Your task to perform on an android device: change notifications settings Image 0: 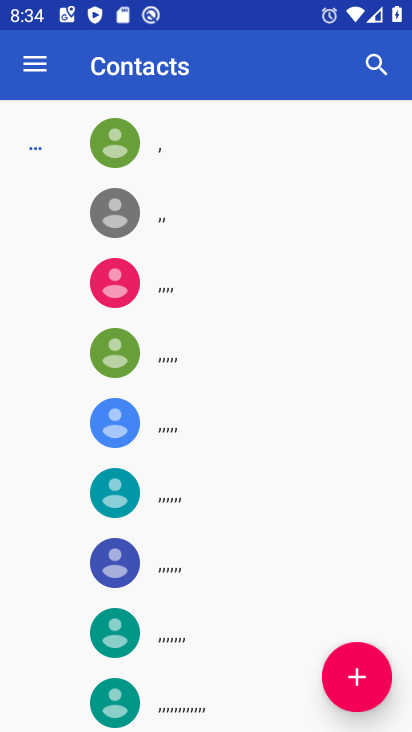
Step 0: press home button
Your task to perform on an android device: change notifications settings Image 1: 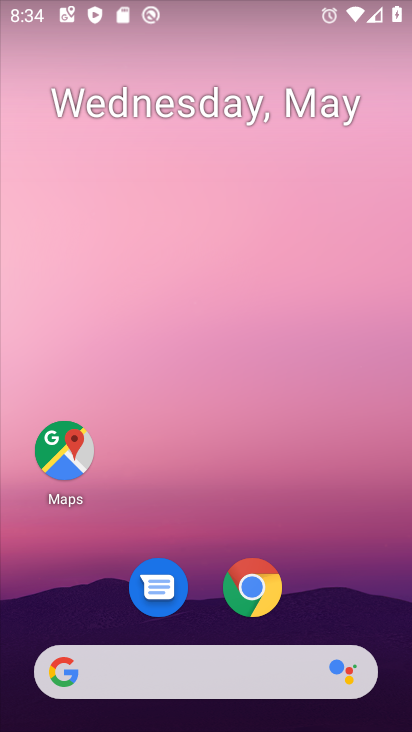
Step 1: drag from (212, 612) to (289, 22)
Your task to perform on an android device: change notifications settings Image 2: 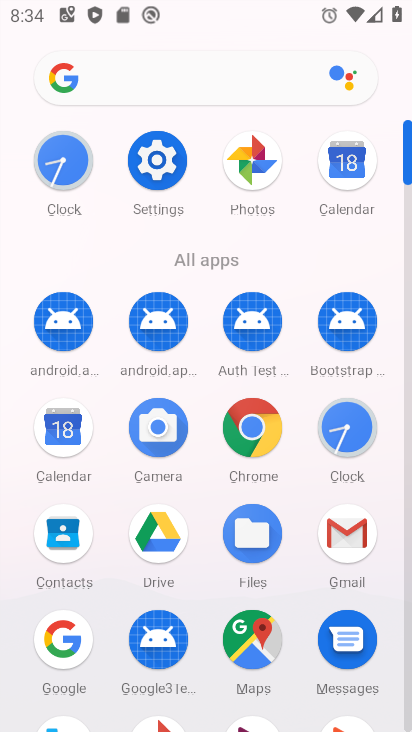
Step 2: click (171, 176)
Your task to perform on an android device: change notifications settings Image 3: 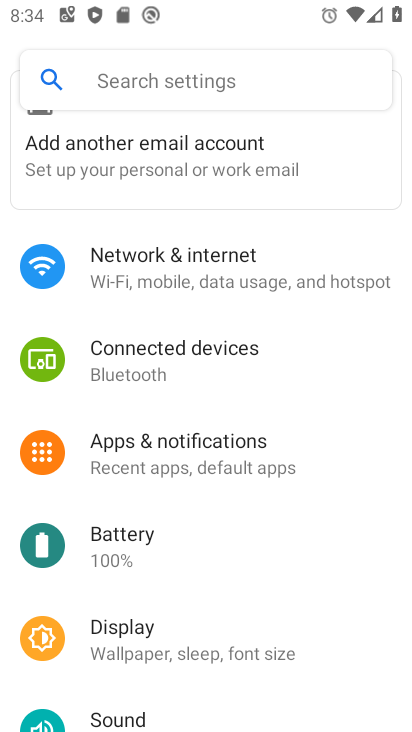
Step 3: click (215, 462)
Your task to perform on an android device: change notifications settings Image 4: 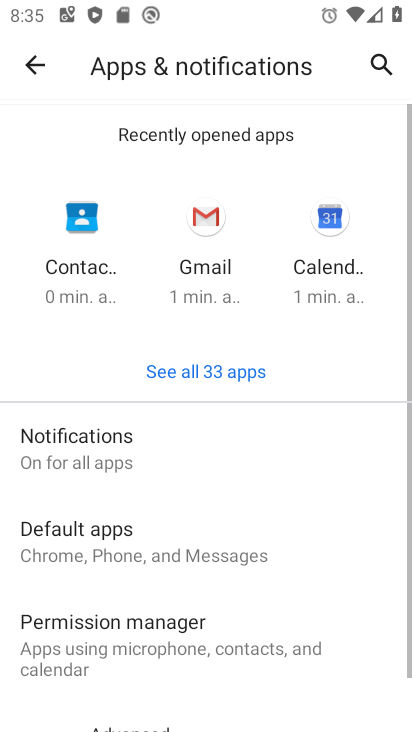
Step 4: click (121, 455)
Your task to perform on an android device: change notifications settings Image 5: 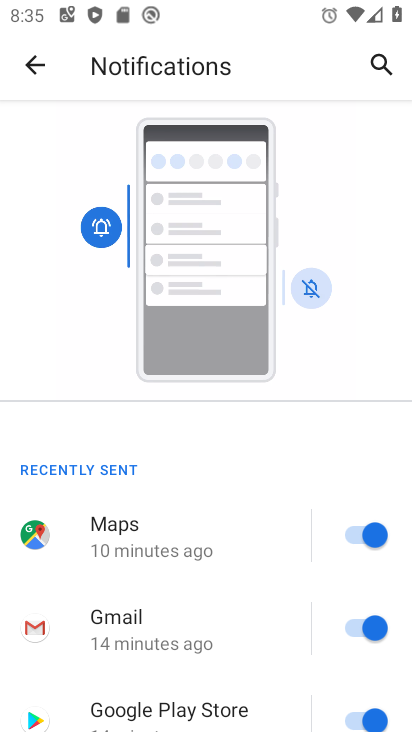
Step 5: drag from (223, 610) to (280, 257)
Your task to perform on an android device: change notifications settings Image 6: 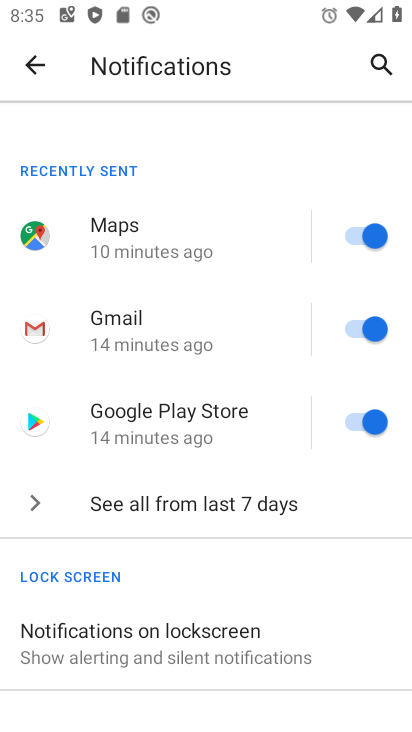
Step 6: click (343, 234)
Your task to perform on an android device: change notifications settings Image 7: 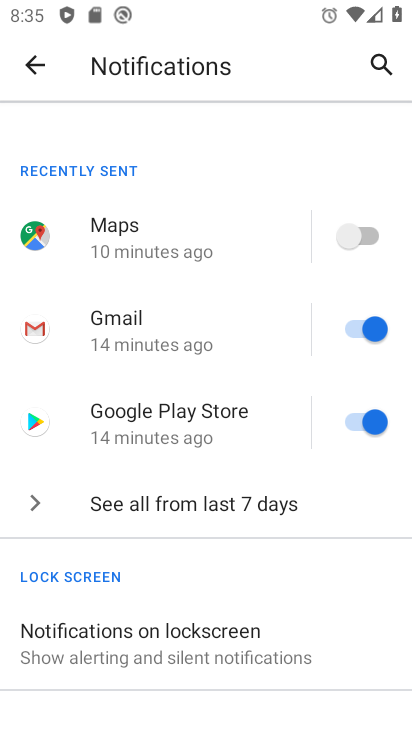
Step 7: click (334, 331)
Your task to perform on an android device: change notifications settings Image 8: 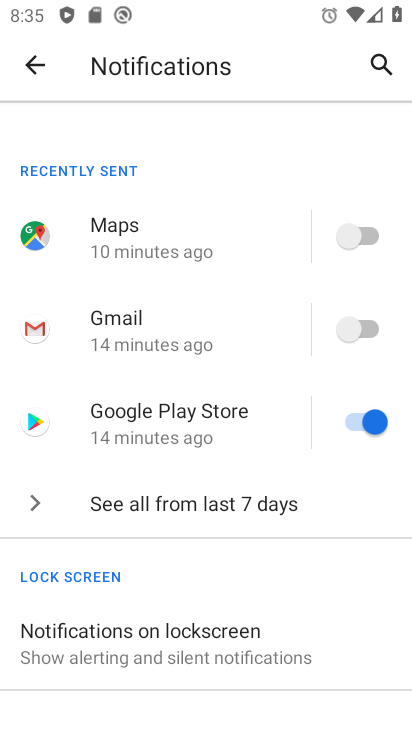
Step 8: click (340, 400)
Your task to perform on an android device: change notifications settings Image 9: 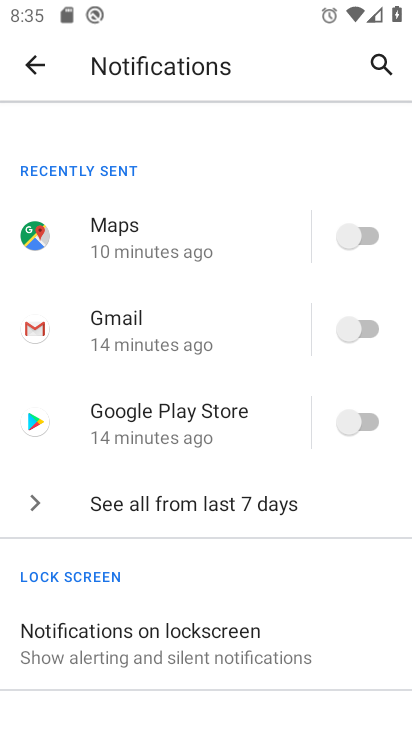
Step 9: click (153, 511)
Your task to perform on an android device: change notifications settings Image 10: 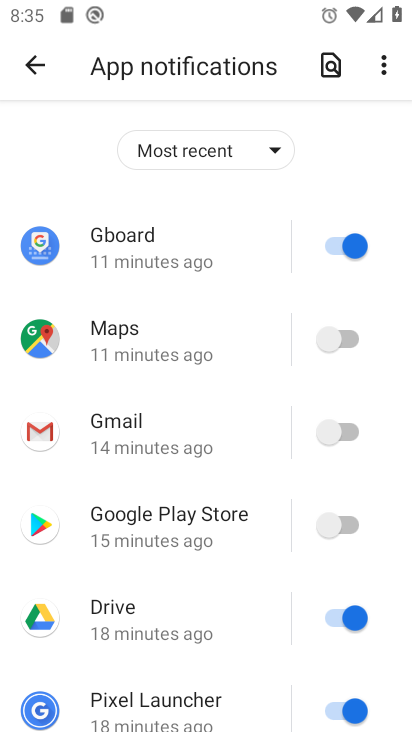
Step 10: click (341, 238)
Your task to perform on an android device: change notifications settings Image 11: 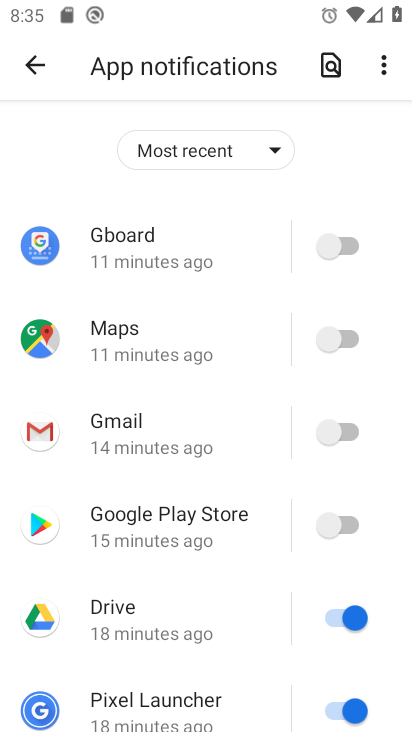
Step 11: drag from (259, 484) to (315, 54)
Your task to perform on an android device: change notifications settings Image 12: 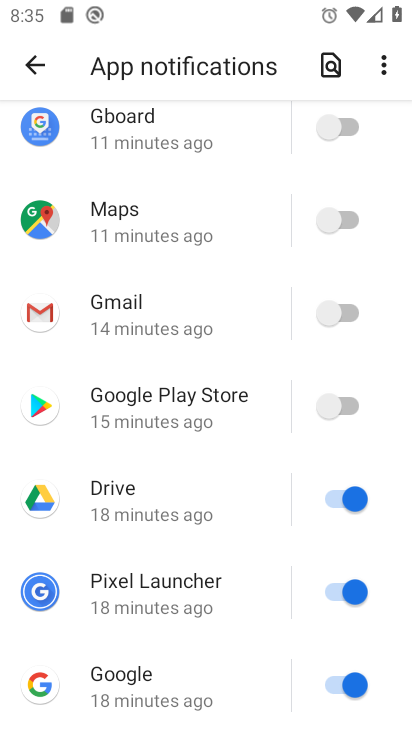
Step 12: click (327, 501)
Your task to perform on an android device: change notifications settings Image 13: 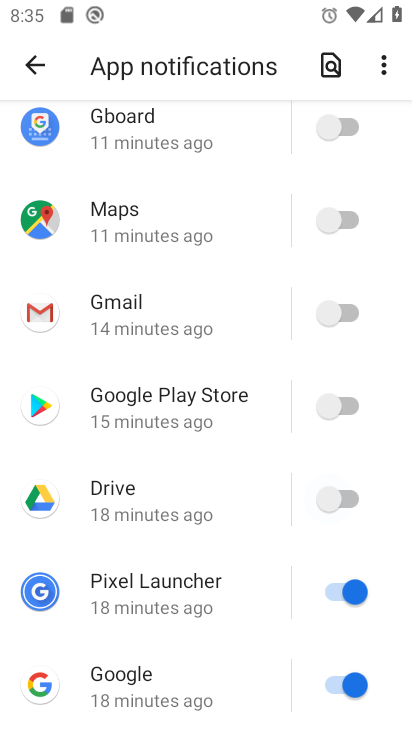
Step 13: click (317, 591)
Your task to perform on an android device: change notifications settings Image 14: 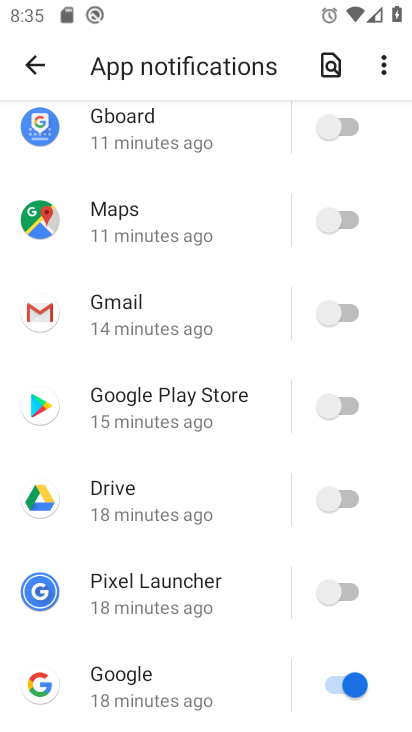
Step 14: click (331, 682)
Your task to perform on an android device: change notifications settings Image 15: 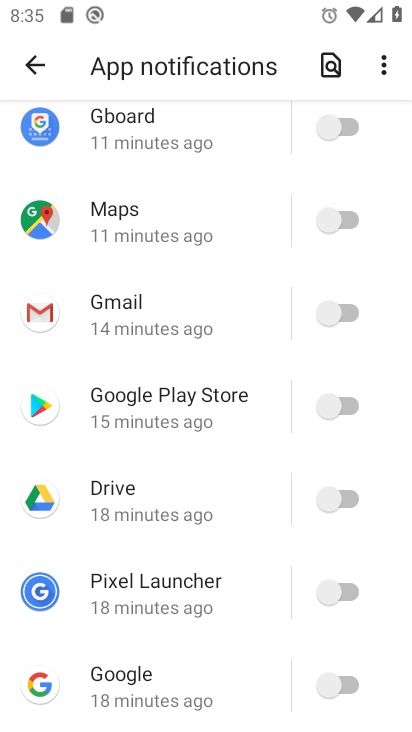
Step 15: task complete